Your task to perform on an android device: Open accessibility settings Image 0: 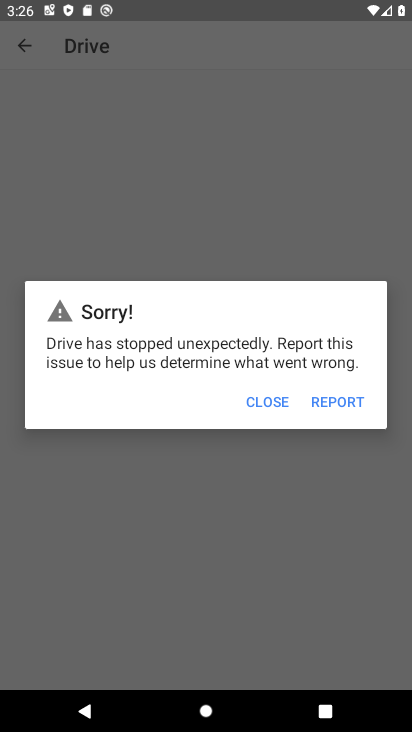
Step 0: press home button
Your task to perform on an android device: Open accessibility settings Image 1: 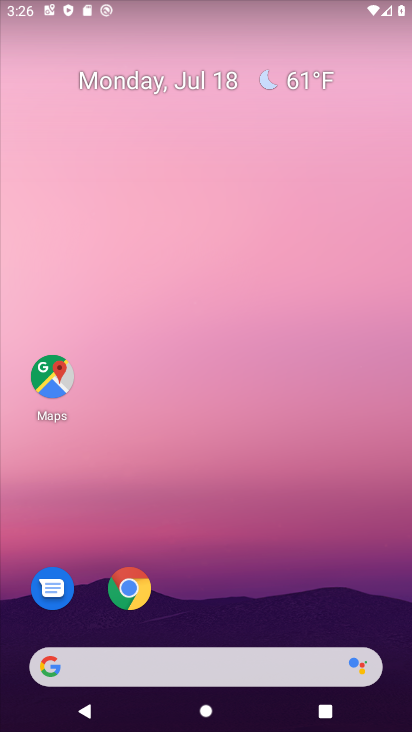
Step 1: drag from (242, 623) to (303, 3)
Your task to perform on an android device: Open accessibility settings Image 2: 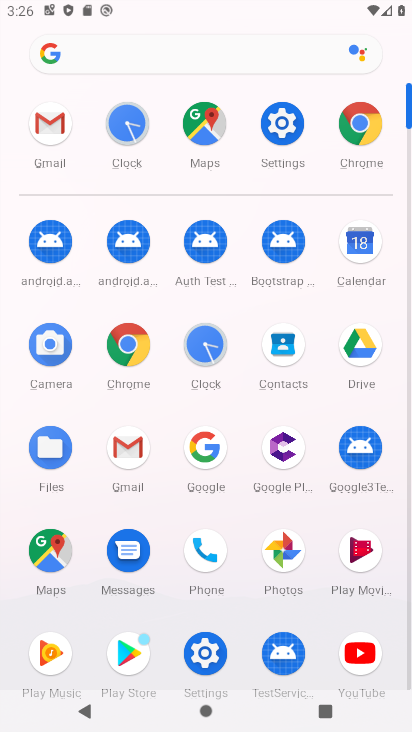
Step 2: click (281, 159)
Your task to perform on an android device: Open accessibility settings Image 3: 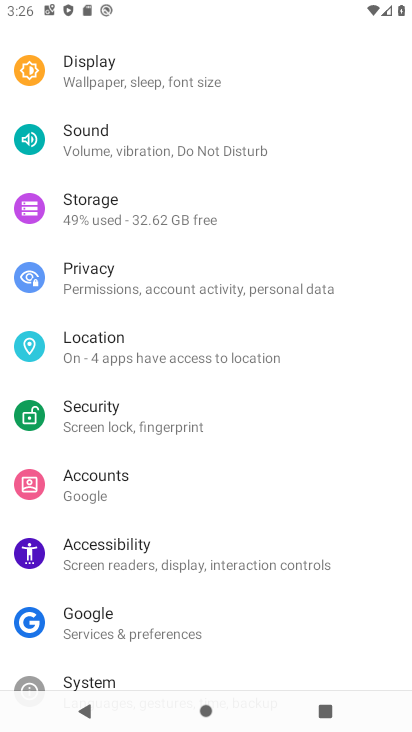
Step 3: click (197, 545)
Your task to perform on an android device: Open accessibility settings Image 4: 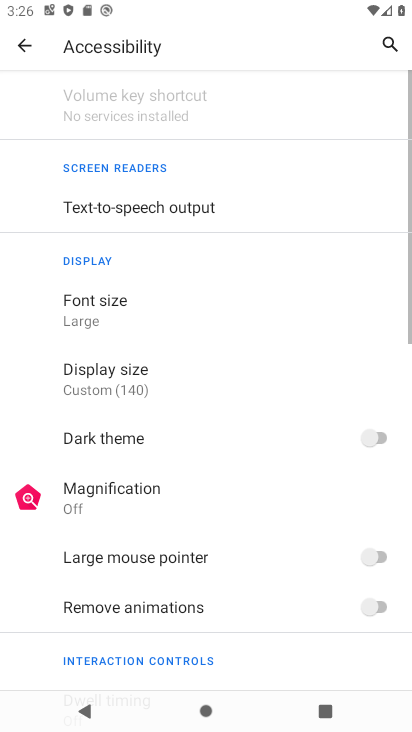
Step 4: task complete